Your task to perform on an android device: change the clock style Image 0: 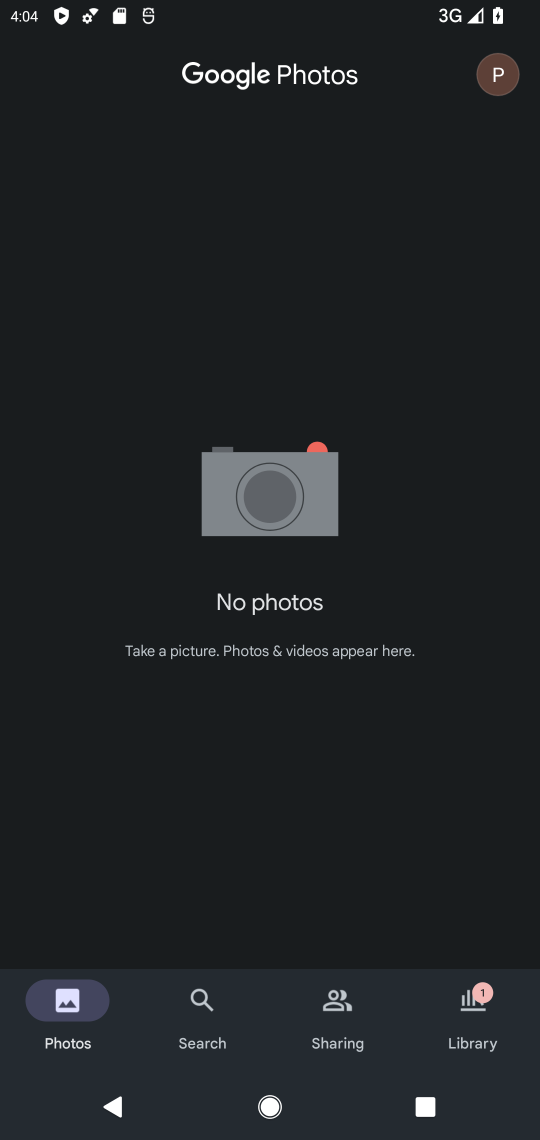
Step 0: press home button
Your task to perform on an android device: change the clock style Image 1: 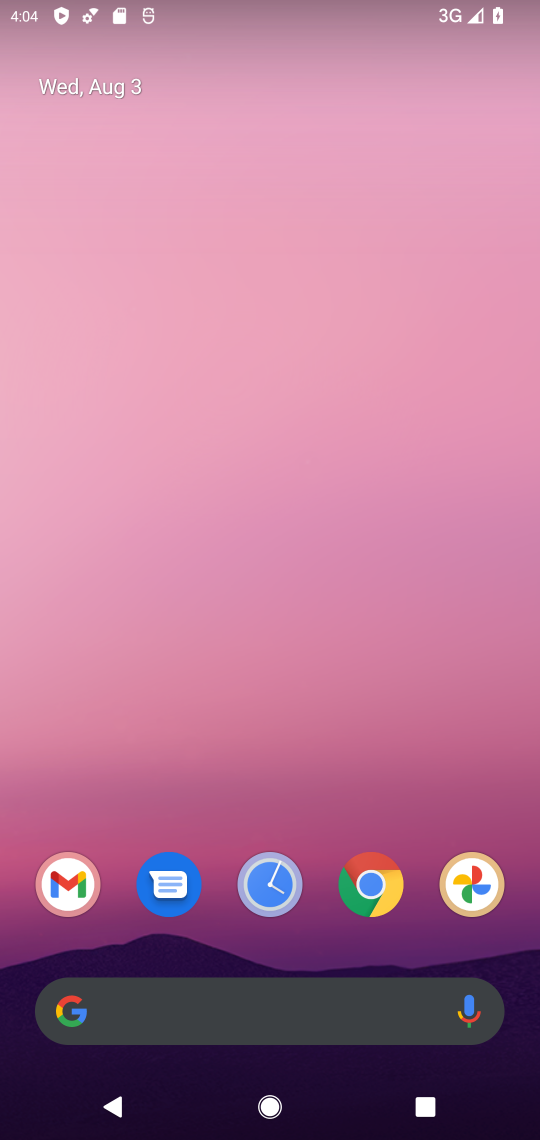
Step 1: click (281, 899)
Your task to perform on an android device: change the clock style Image 2: 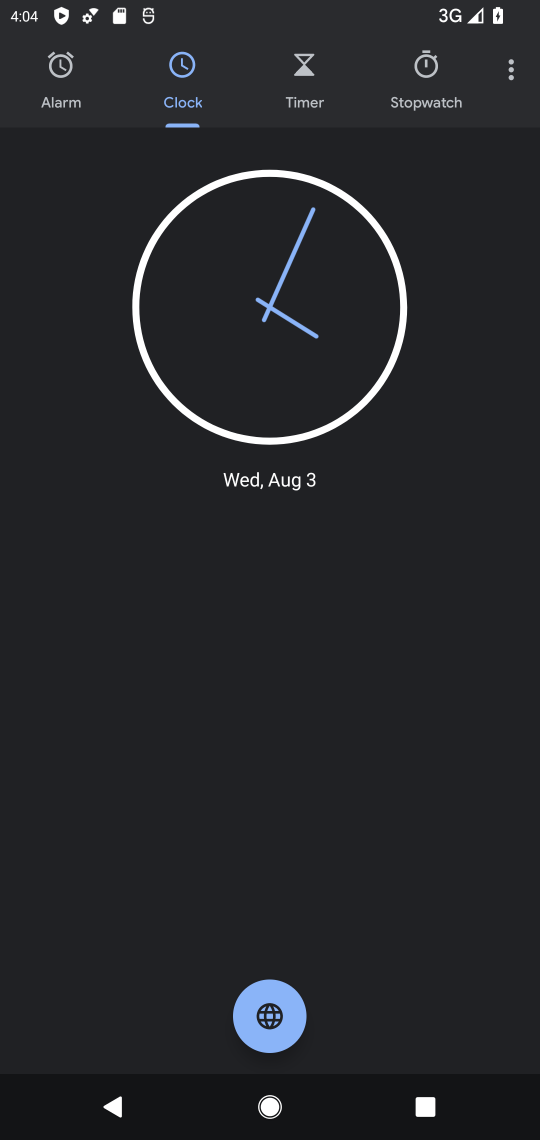
Step 2: click (501, 74)
Your task to perform on an android device: change the clock style Image 3: 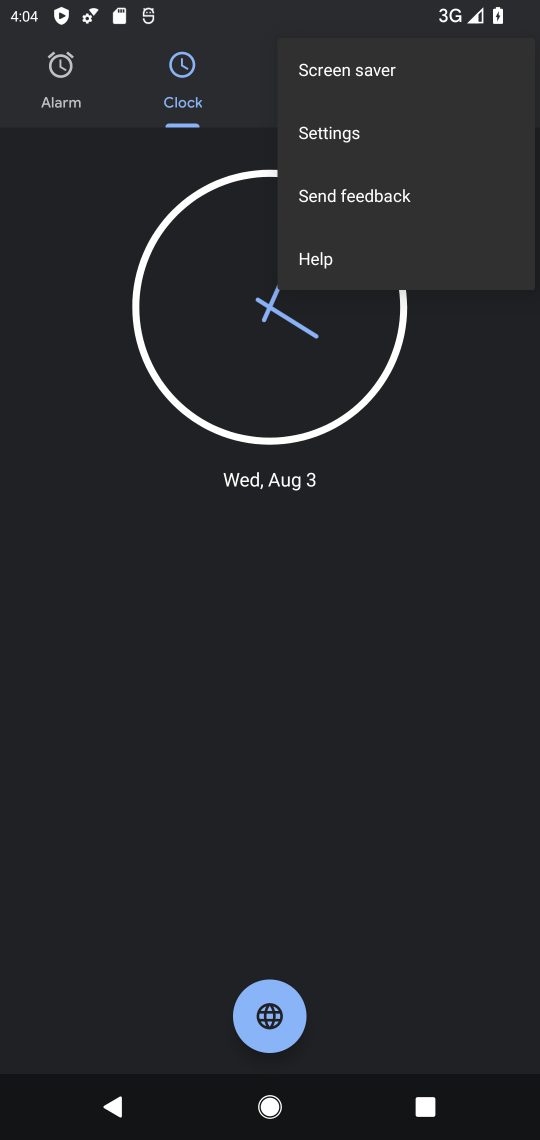
Step 3: click (340, 142)
Your task to perform on an android device: change the clock style Image 4: 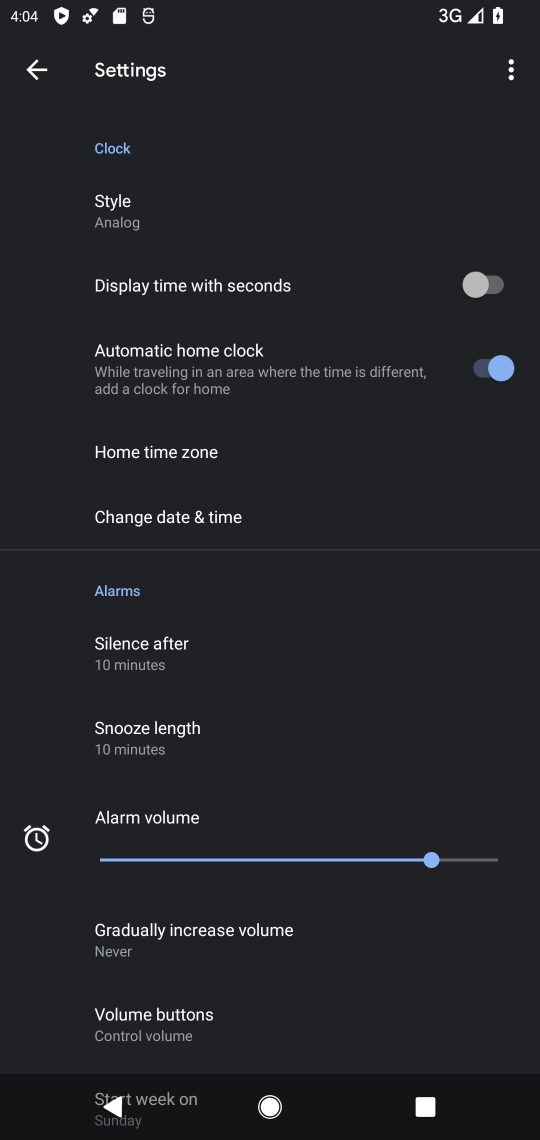
Step 4: click (173, 224)
Your task to perform on an android device: change the clock style Image 5: 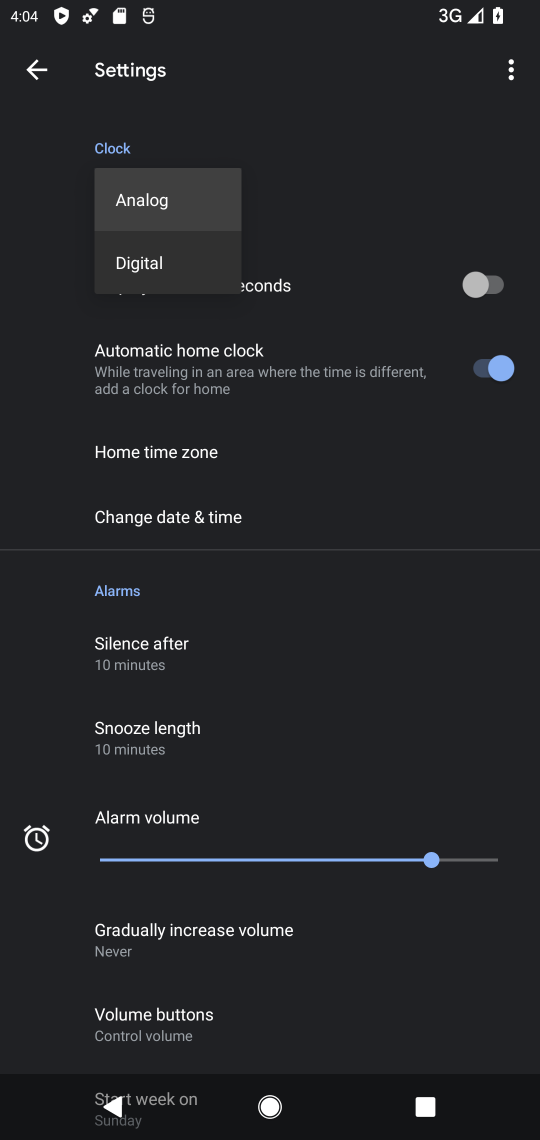
Step 5: click (150, 247)
Your task to perform on an android device: change the clock style Image 6: 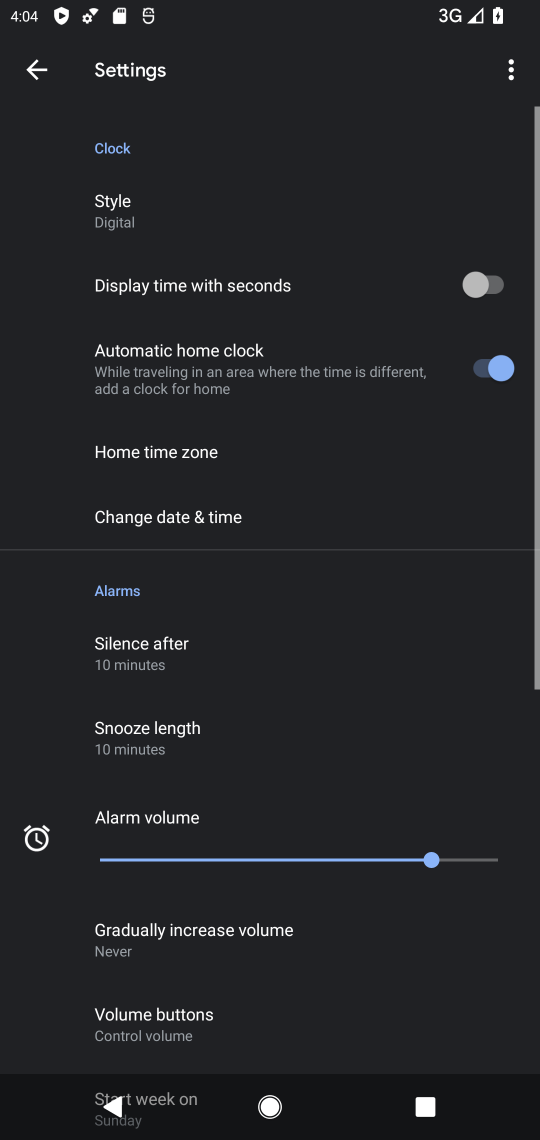
Step 6: task complete